Your task to perform on an android device: allow notifications from all sites in the chrome app Image 0: 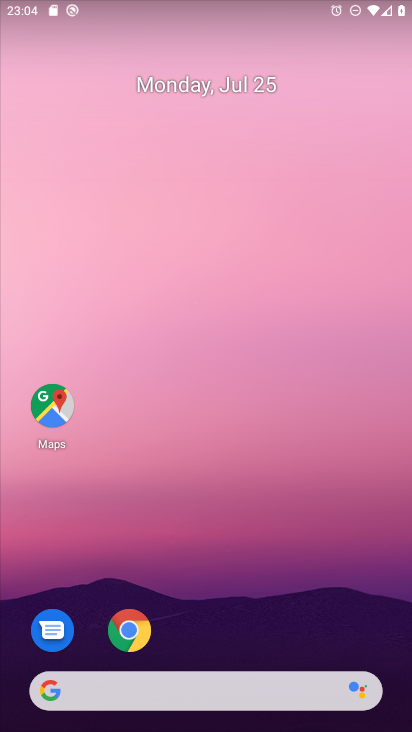
Step 0: drag from (279, 587) to (312, 76)
Your task to perform on an android device: allow notifications from all sites in the chrome app Image 1: 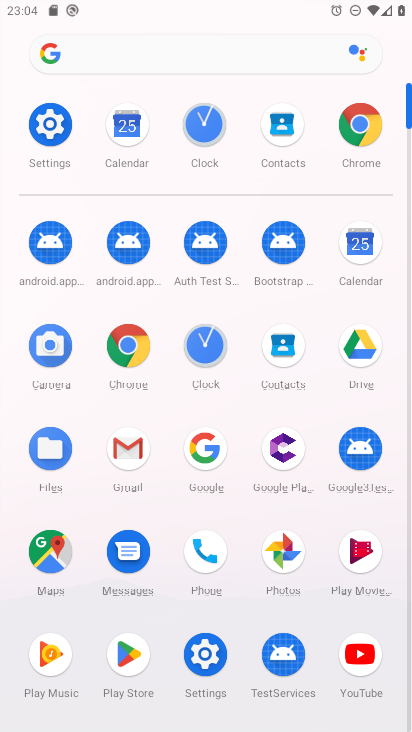
Step 1: click (365, 123)
Your task to perform on an android device: allow notifications from all sites in the chrome app Image 2: 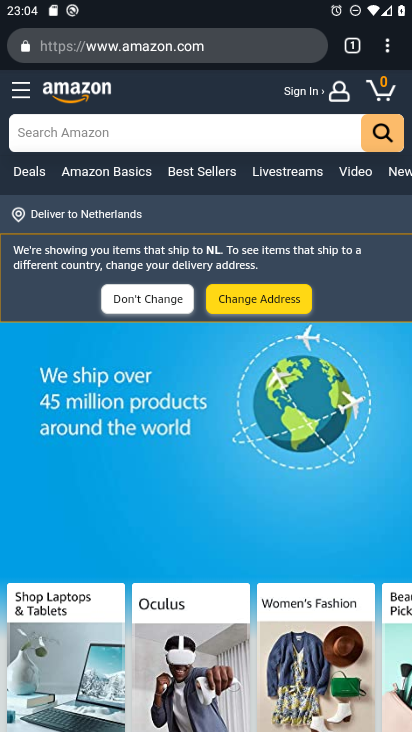
Step 2: drag from (390, 49) to (236, 598)
Your task to perform on an android device: allow notifications from all sites in the chrome app Image 3: 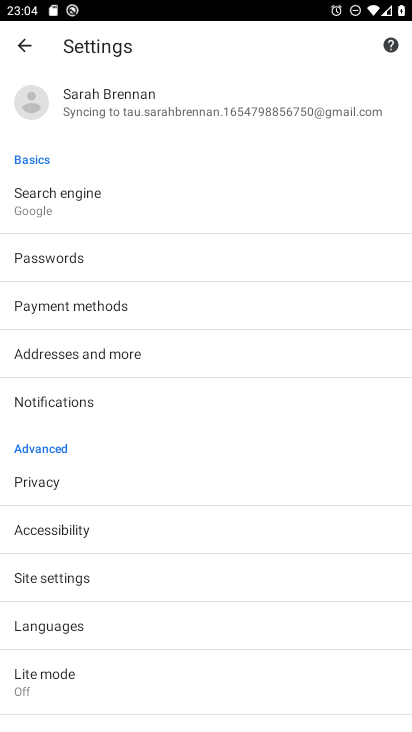
Step 3: click (63, 411)
Your task to perform on an android device: allow notifications from all sites in the chrome app Image 4: 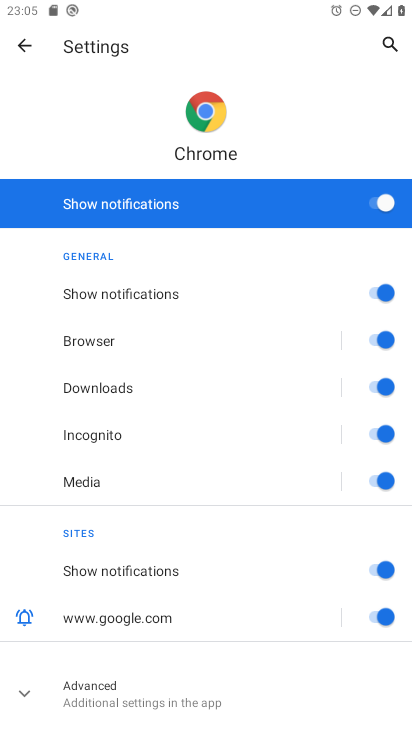
Step 4: task complete